Your task to perform on an android device: see sites visited before in the chrome app Image 0: 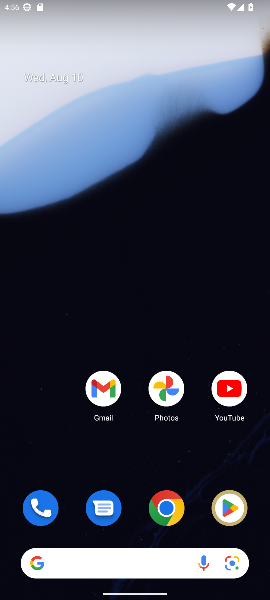
Step 0: press home button
Your task to perform on an android device: see sites visited before in the chrome app Image 1: 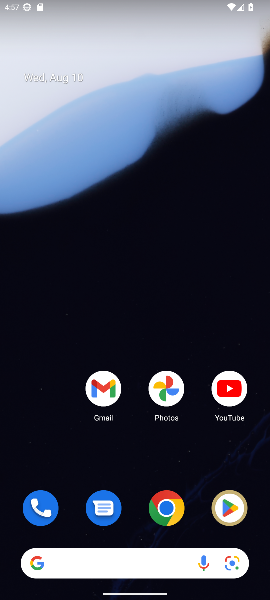
Step 1: click (173, 506)
Your task to perform on an android device: see sites visited before in the chrome app Image 2: 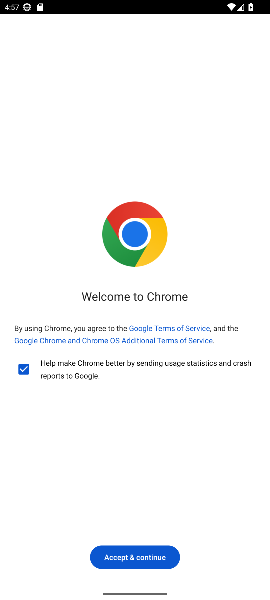
Step 2: click (140, 561)
Your task to perform on an android device: see sites visited before in the chrome app Image 3: 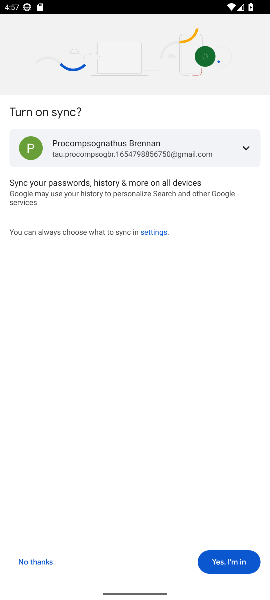
Step 3: click (226, 564)
Your task to perform on an android device: see sites visited before in the chrome app Image 4: 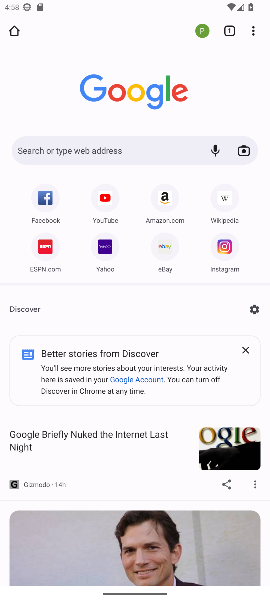
Step 4: task complete